Your task to perform on an android device: Go to Yahoo.com Image 0: 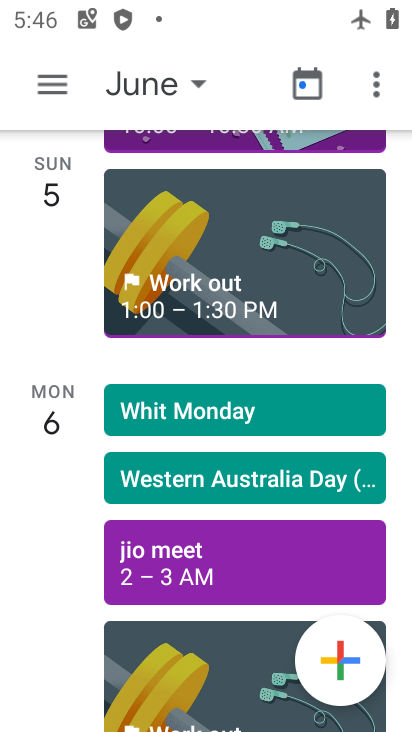
Step 0: press home button
Your task to perform on an android device: Go to Yahoo.com Image 1: 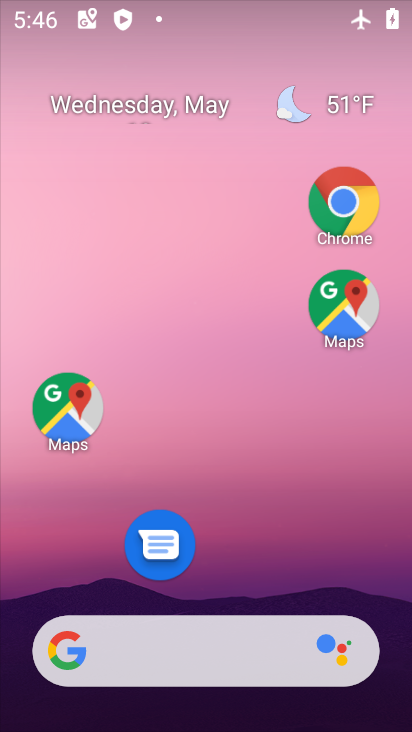
Step 1: drag from (222, 587) to (215, 163)
Your task to perform on an android device: Go to Yahoo.com Image 2: 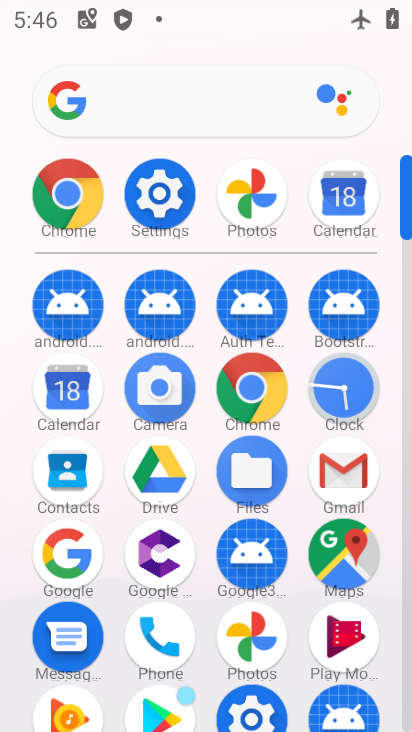
Step 2: click (74, 200)
Your task to perform on an android device: Go to Yahoo.com Image 3: 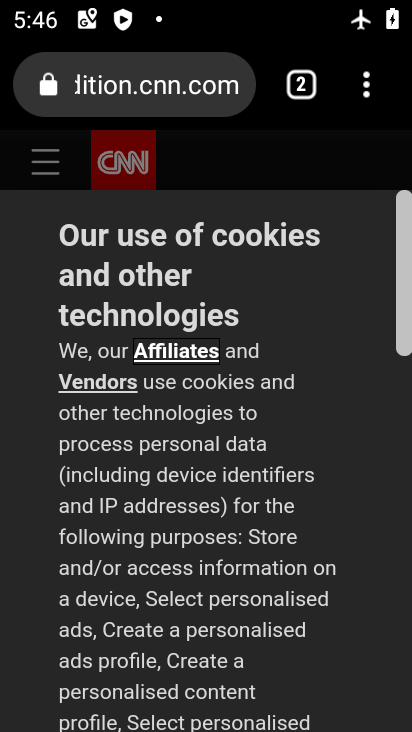
Step 3: press back button
Your task to perform on an android device: Go to Yahoo.com Image 4: 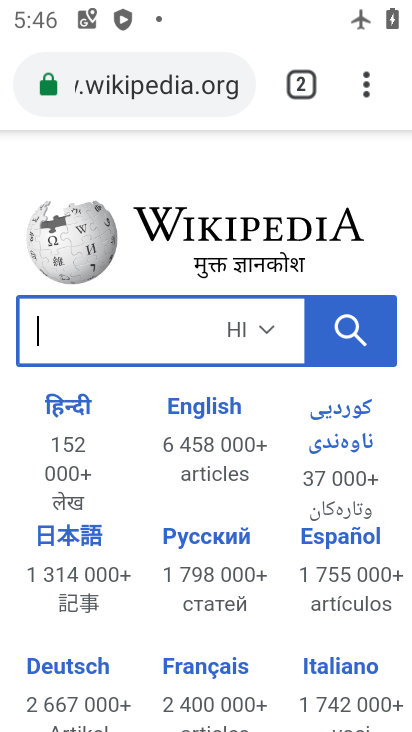
Step 4: press back button
Your task to perform on an android device: Go to Yahoo.com Image 5: 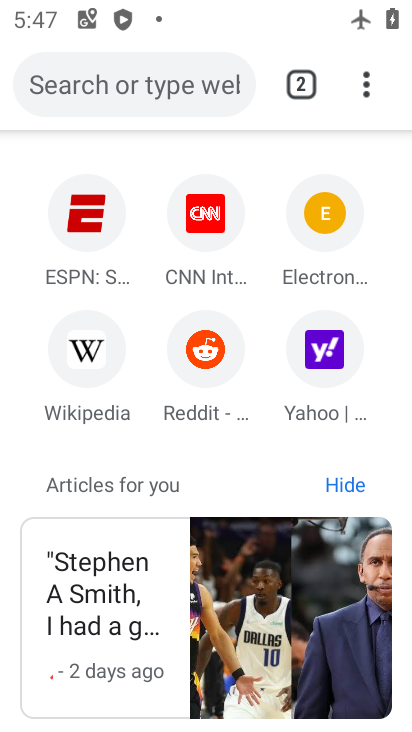
Step 5: click (331, 359)
Your task to perform on an android device: Go to Yahoo.com Image 6: 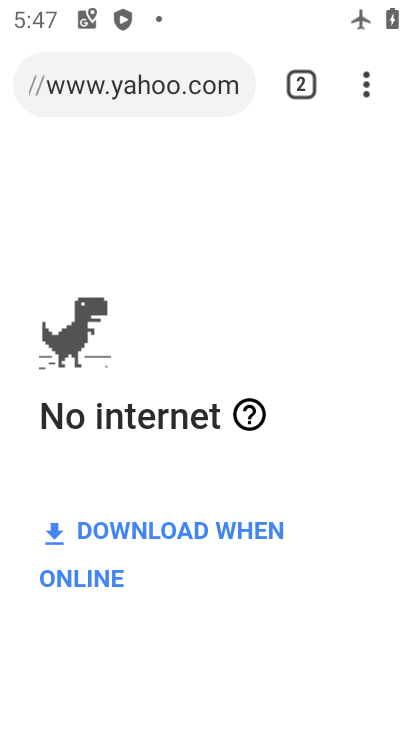
Step 6: task complete